Your task to perform on an android device: Go to Google Image 0: 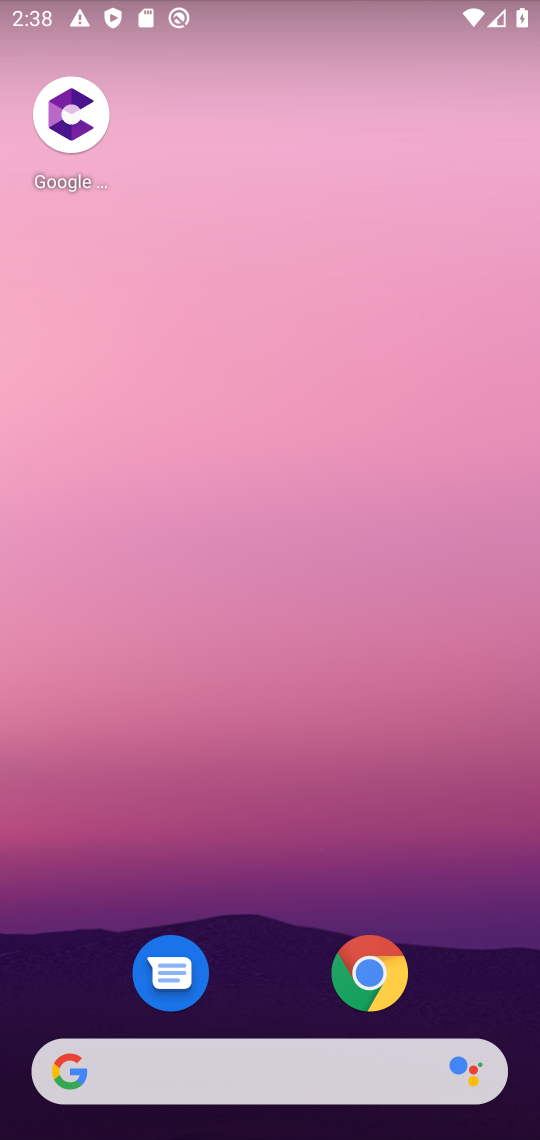
Step 0: drag from (266, 925) to (277, 73)
Your task to perform on an android device: Go to Google Image 1: 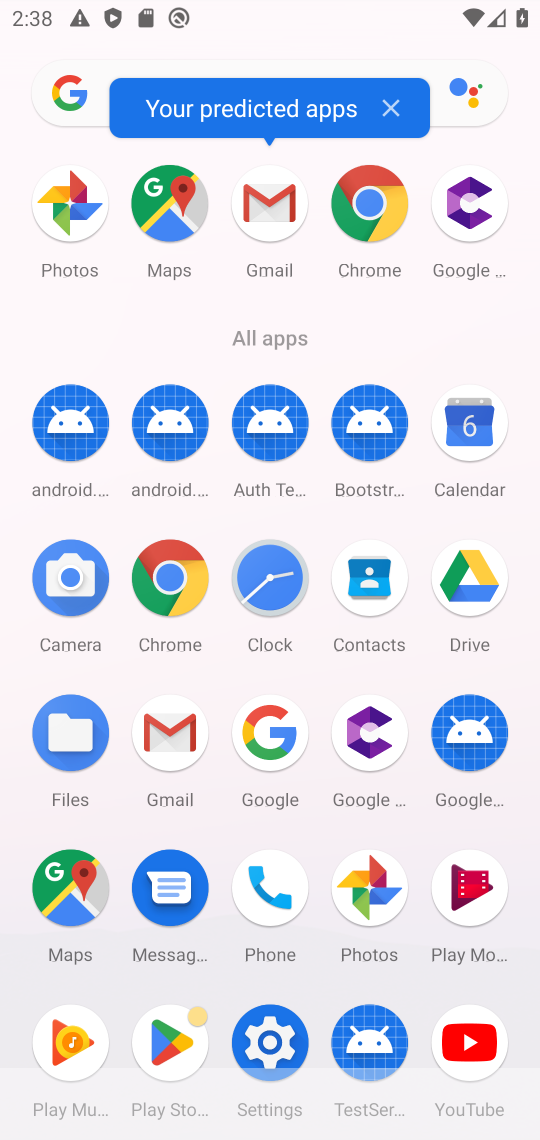
Step 1: click (281, 737)
Your task to perform on an android device: Go to Google Image 2: 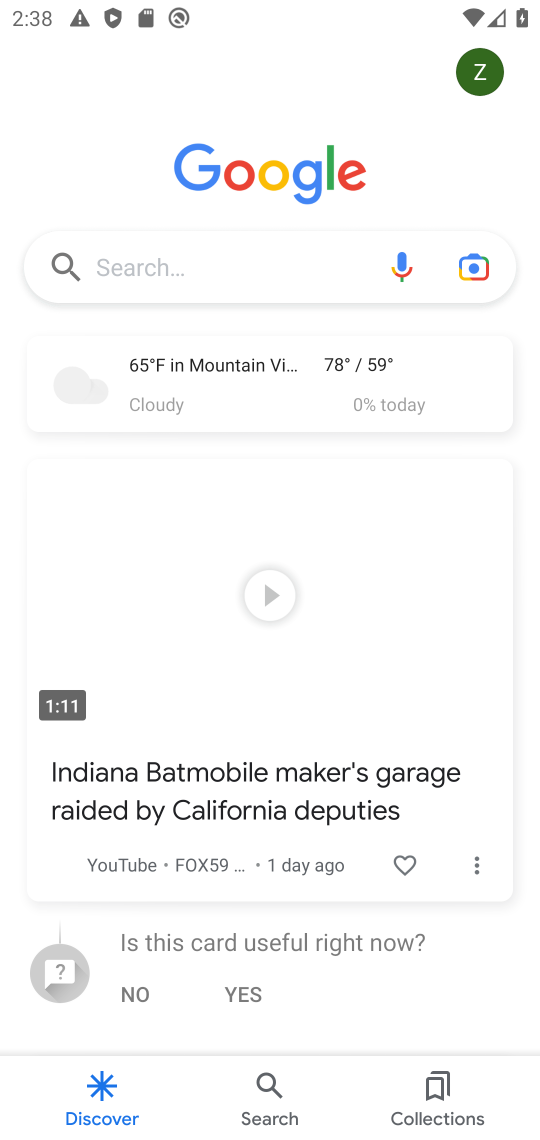
Step 2: task complete